Your task to perform on an android device: When is my next meeting? Image 0: 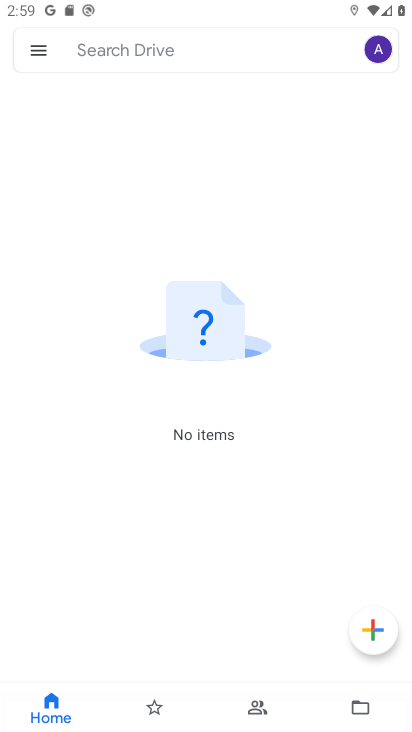
Step 0: press back button
Your task to perform on an android device: When is my next meeting? Image 1: 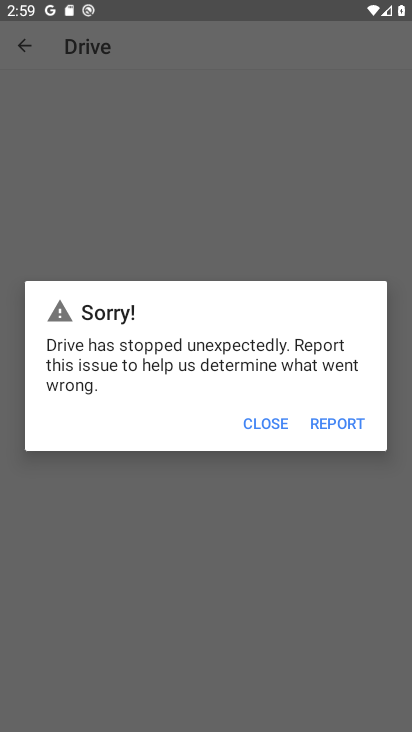
Step 1: click (249, 415)
Your task to perform on an android device: When is my next meeting? Image 2: 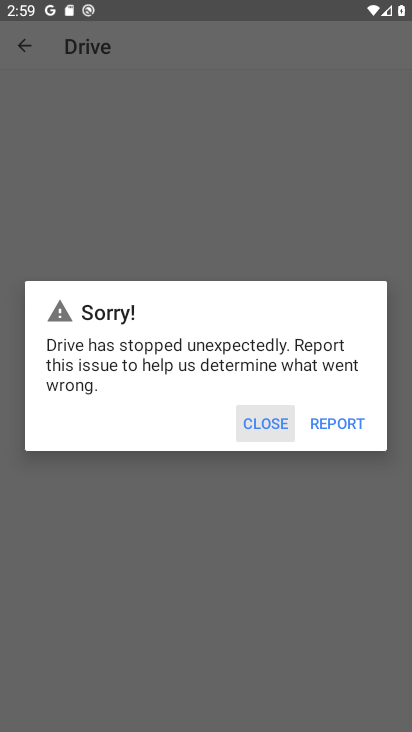
Step 2: click (250, 415)
Your task to perform on an android device: When is my next meeting? Image 3: 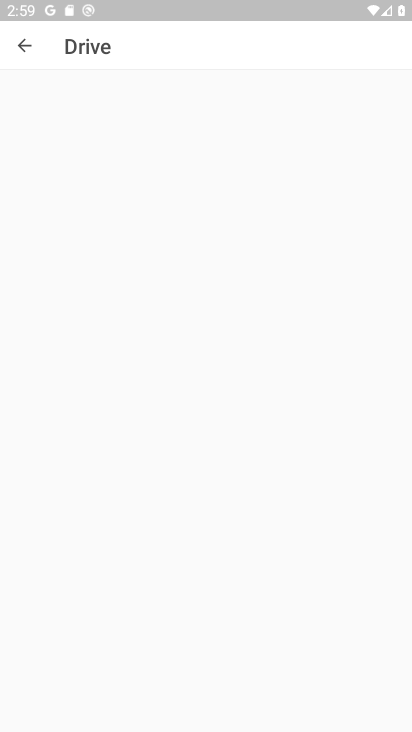
Step 3: click (255, 417)
Your task to perform on an android device: When is my next meeting? Image 4: 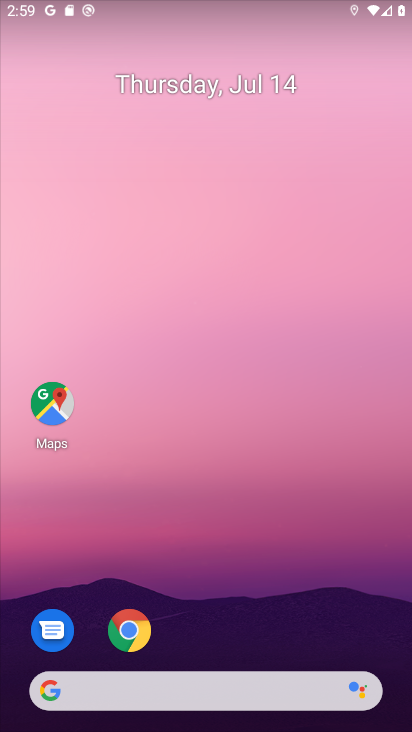
Step 4: drag from (244, 621) to (153, 194)
Your task to perform on an android device: When is my next meeting? Image 5: 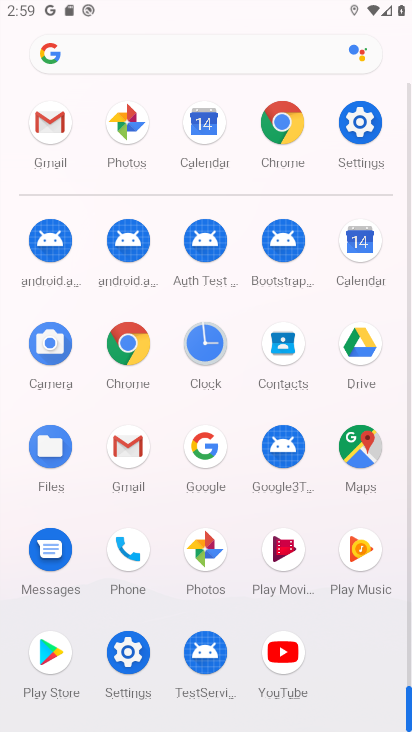
Step 5: click (362, 238)
Your task to perform on an android device: When is my next meeting? Image 6: 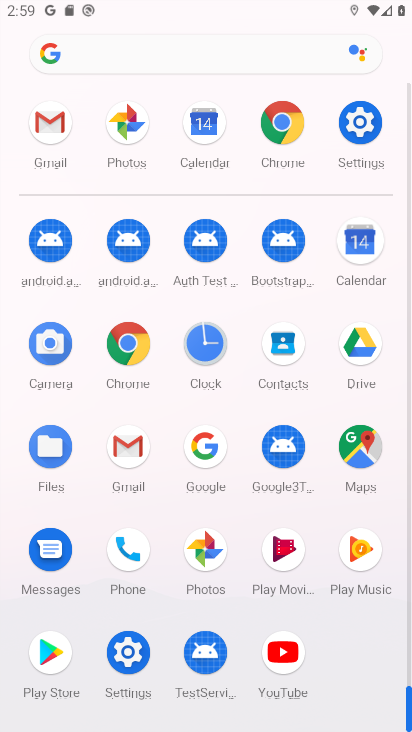
Step 6: click (364, 237)
Your task to perform on an android device: When is my next meeting? Image 7: 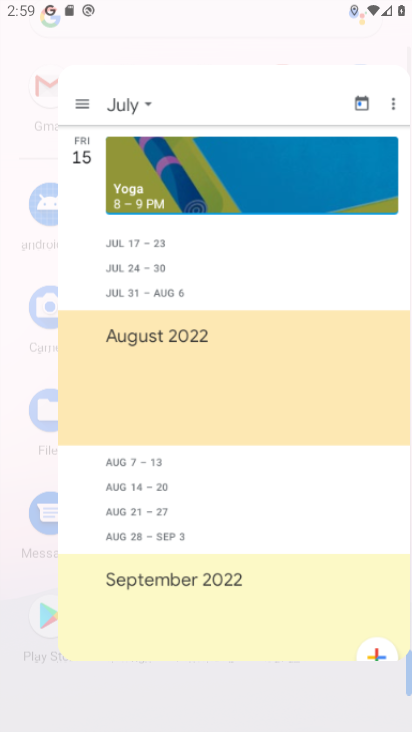
Step 7: click (364, 237)
Your task to perform on an android device: When is my next meeting? Image 8: 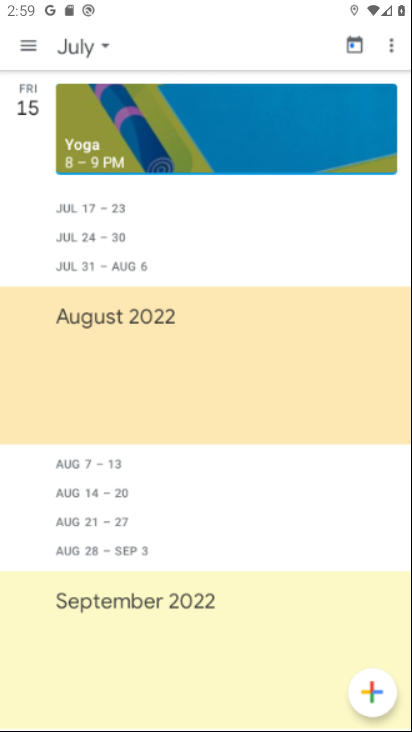
Step 8: click (364, 237)
Your task to perform on an android device: When is my next meeting? Image 9: 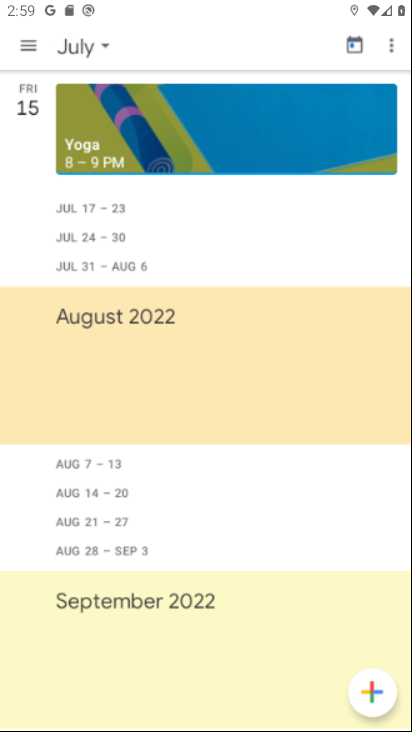
Step 9: click (364, 237)
Your task to perform on an android device: When is my next meeting? Image 10: 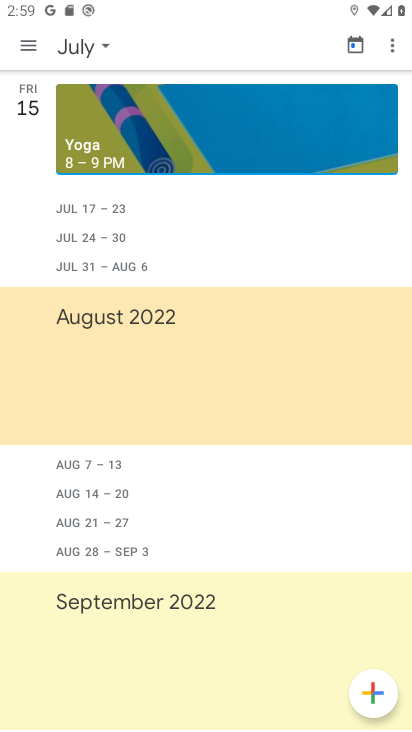
Step 10: click (384, 41)
Your task to perform on an android device: When is my next meeting? Image 11: 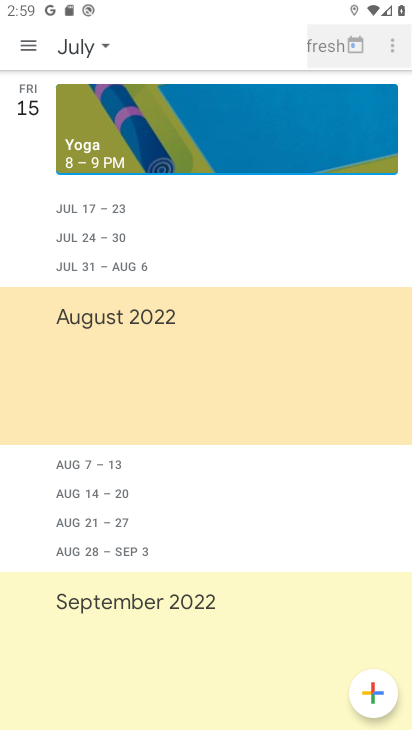
Step 11: drag from (172, 171) to (193, 375)
Your task to perform on an android device: When is my next meeting? Image 12: 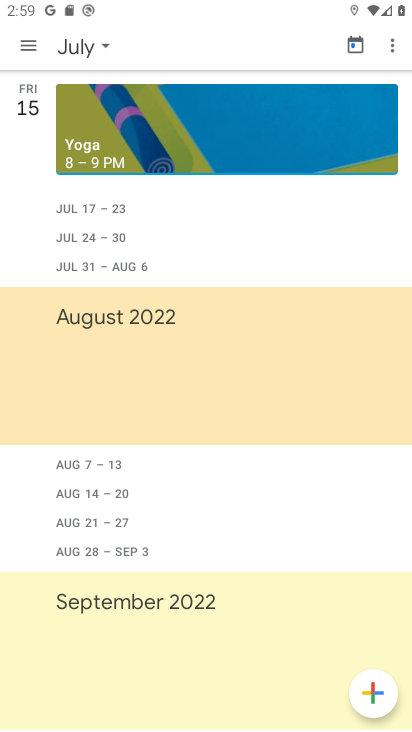
Step 12: drag from (118, 179) to (130, 403)
Your task to perform on an android device: When is my next meeting? Image 13: 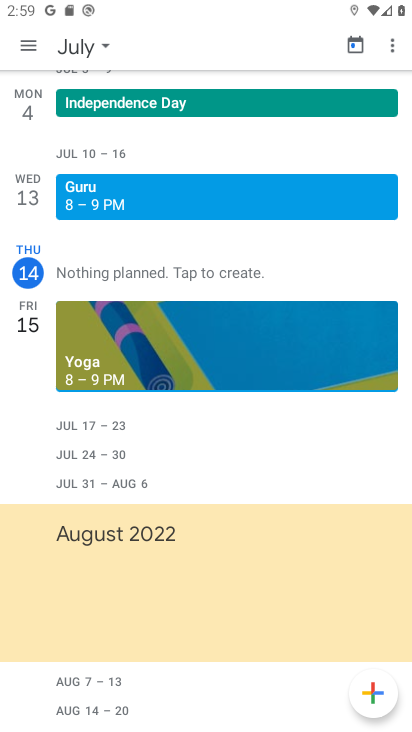
Step 13: drag from (103, 46) to (129, 163)
Your task to perform on an android device: When is my next meeting? Image 14: 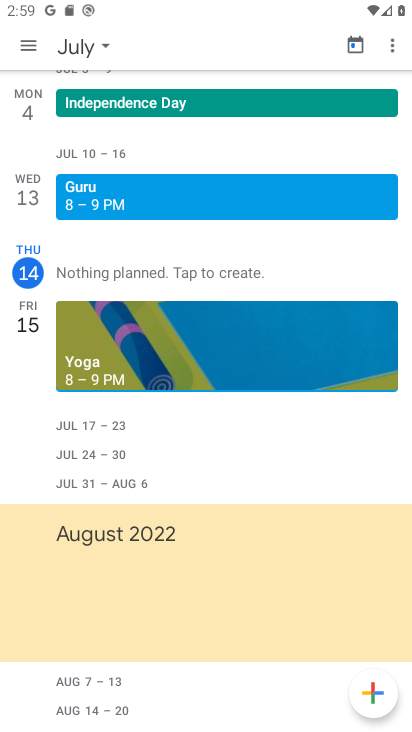
Step 14: click (108, 45)
Your task to perform on an android device: When is my next meeting? Image 15: 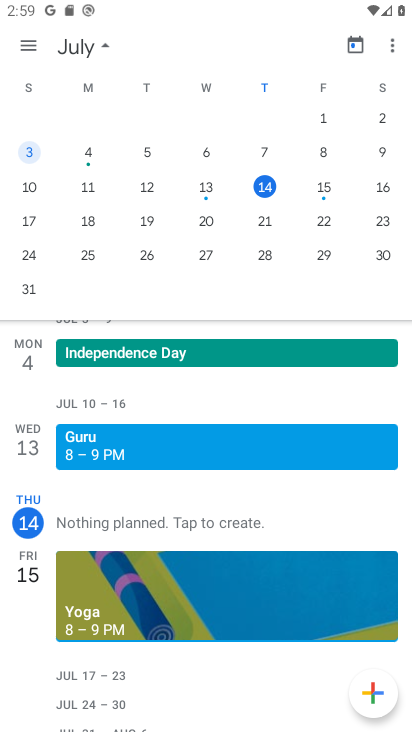
Step 15: drag from (145, 307) to (138, 368)
Your task to perform on an android device: When is my next meeting? Image 16: 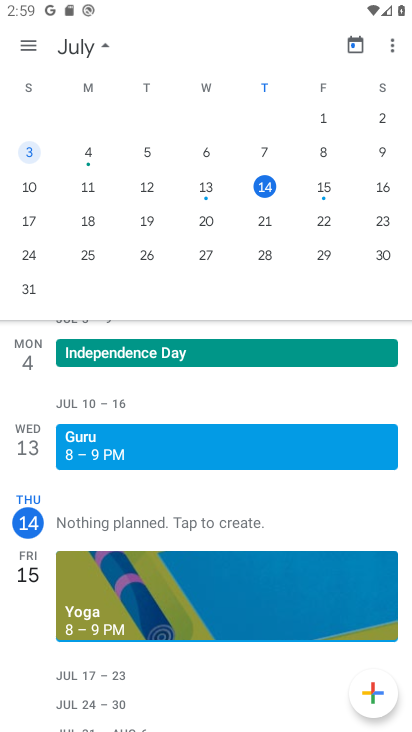
Step 16: drag from (71, 176) to (129, 579)
Your task to perform on an android device: When is my next meeting? Image 17: 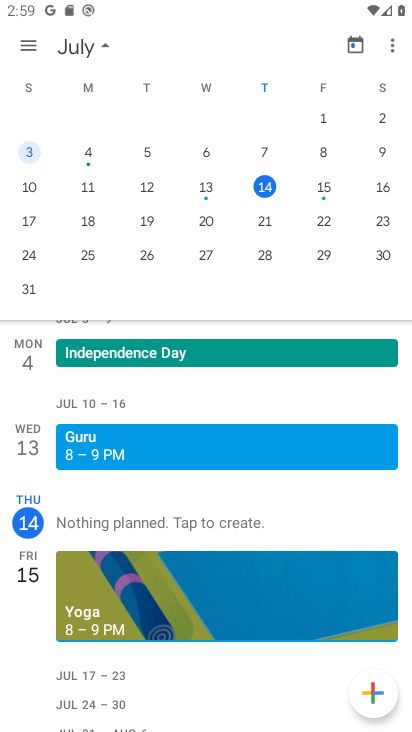
Step 17: drag from (81, 320) to (134, 644)
Your task to perform on an android device: When is my next meeting? Image 18: 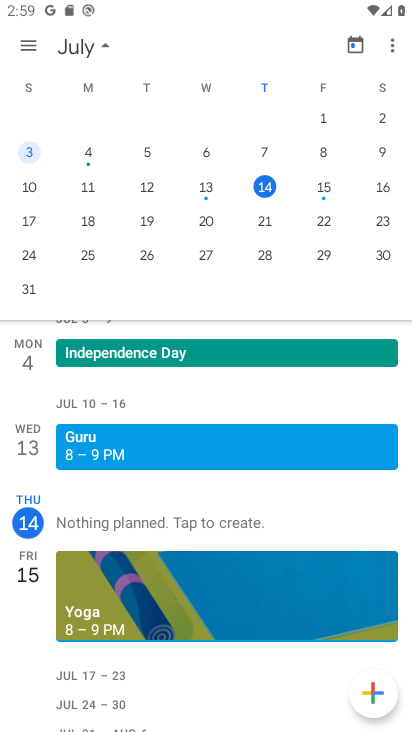
Step 18: drag from (128, 395) to (170, 639)
Your task to perform on an android device: When is my next meeting? Image 19: 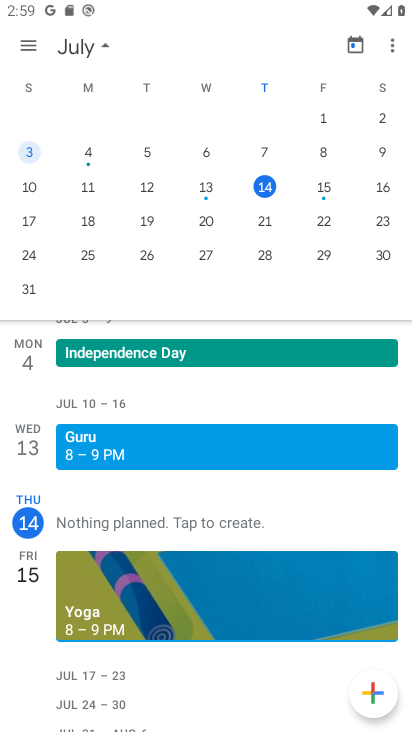
Step 19: drag from (148, 414) to (175, 593)
Your task to perform on an android device: When is my next meeting? Image 20: 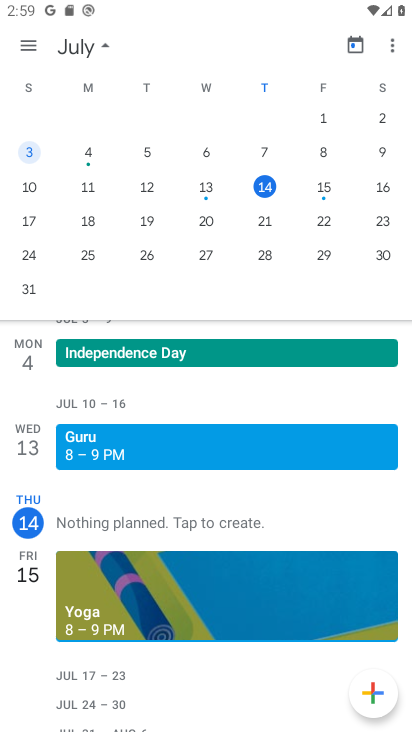
Step 20: drag from (162, 476) to (177, 603)
Your task to perform on an android device: When is my next meeting? Image 21: 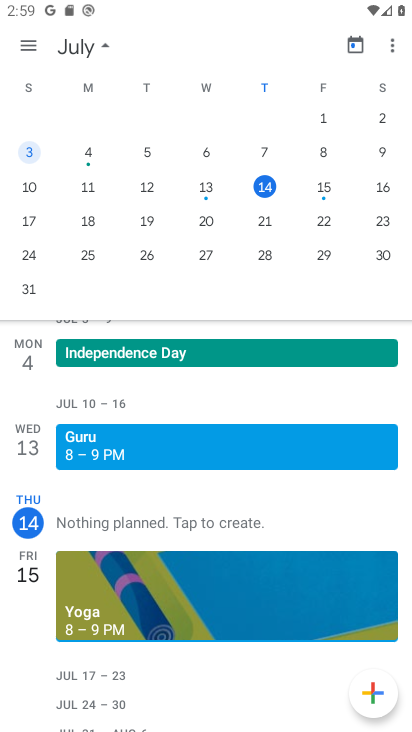
Step 21: drag from (113, 254) to (141, 509)
Your task to perform on an android device: When is my next meeting? Image 22: 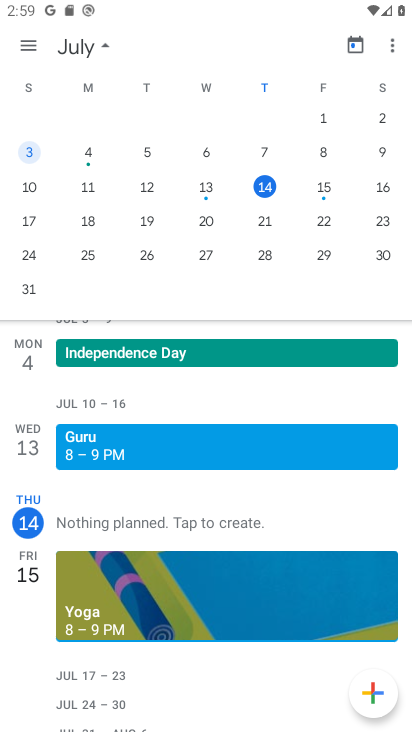
Step 22: click (332, 181)
Your task to perform on an android device: When is my next meeting? Image 23: 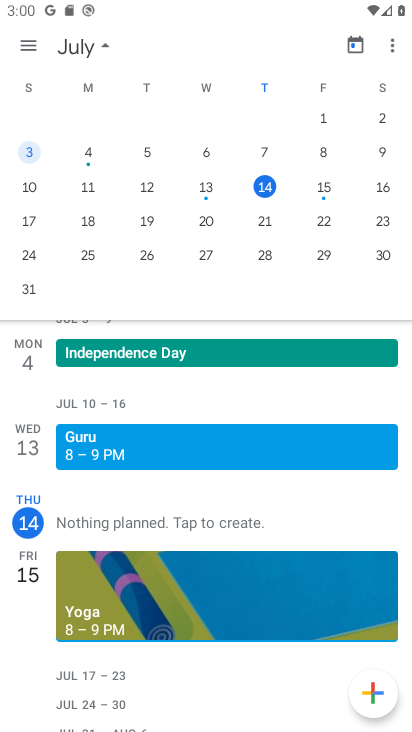
Step 23: task complete